Your task to perform on an android device: Go to battery settings Image 0: 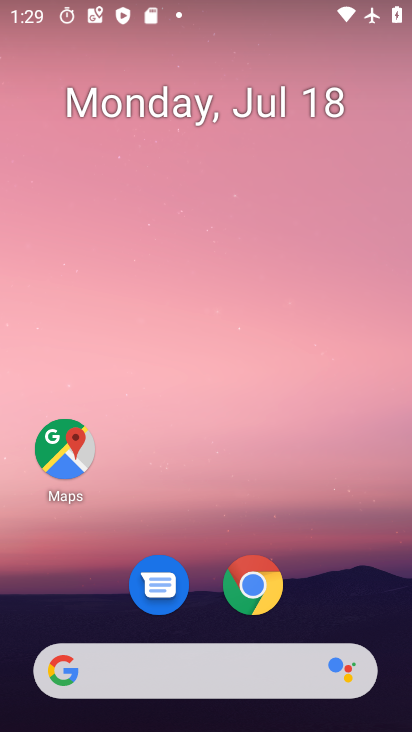
Step 0: press home button
Your task to perform on an android device: Go to battery settings Image 1: 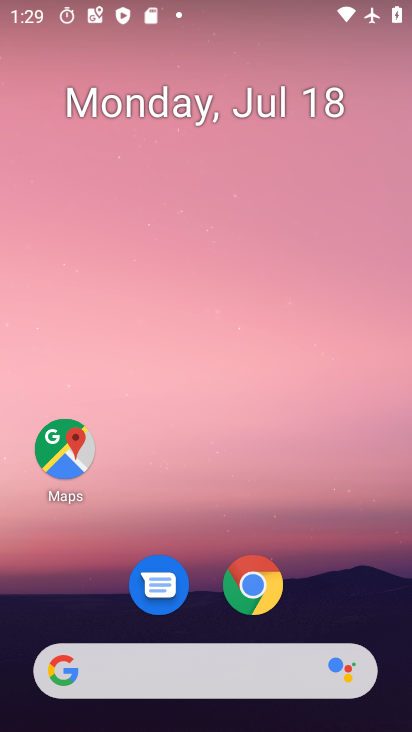
Step 1: drag from (235, 680) to (319, 12)
Your task to perform on an android device: Go to battery settings Image 2: 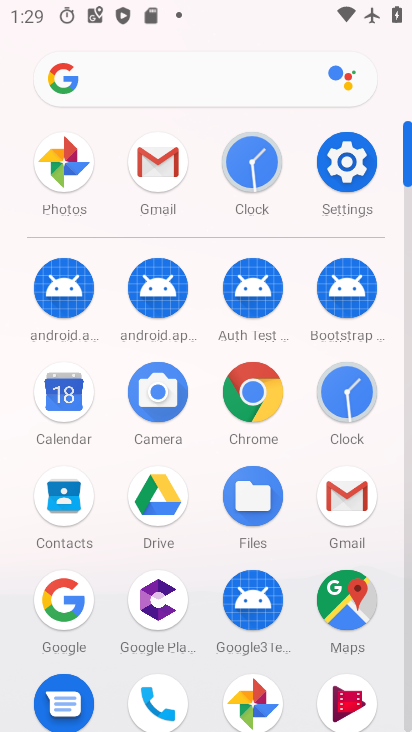
Step 2: click (344, 168)
Your task to perform on an android device: Go to battery settings Image 3: 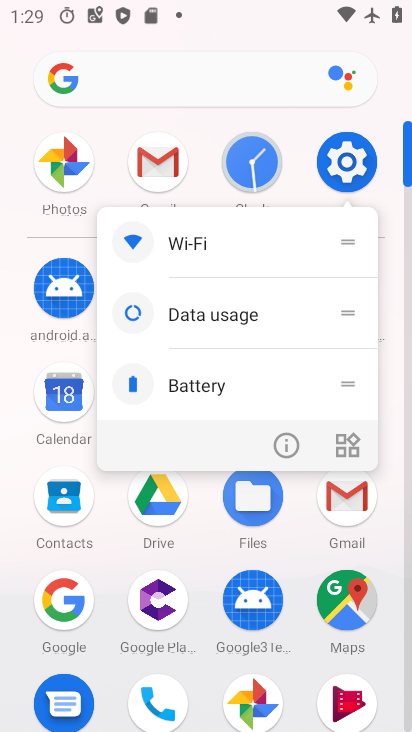
Step 3: click (356, 170)
Your task to perform on an android device: Go to battery settings Image 4: 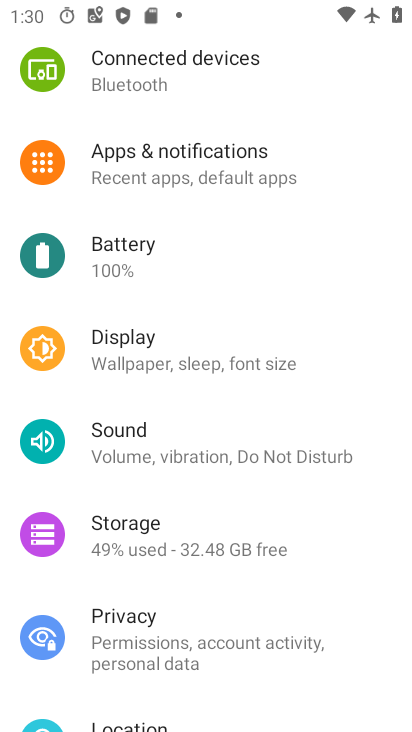
Step 4: click (119, 259)
Your task to perform on an android device: Go to battery settings Image 5: 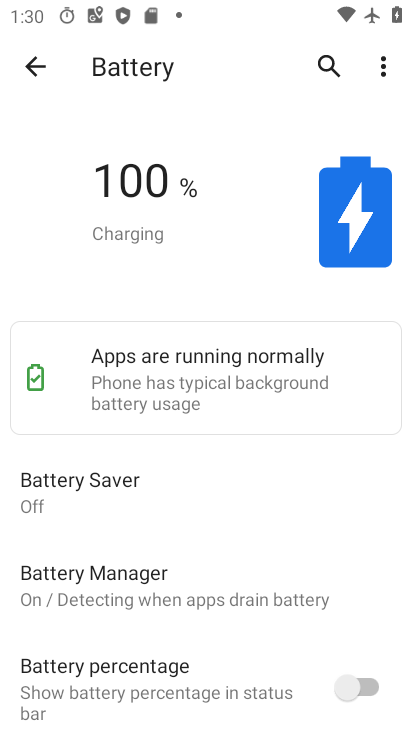
Step 5: task complete